Your task to perform on an android device: turn off translation in the chrome app Image 0: 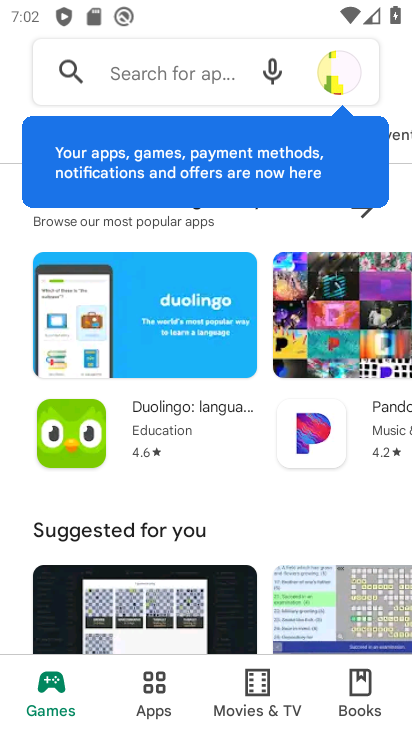
Step 0: press home button
Your task to perform on an android device: turn off translation in the chrome app Image 1: 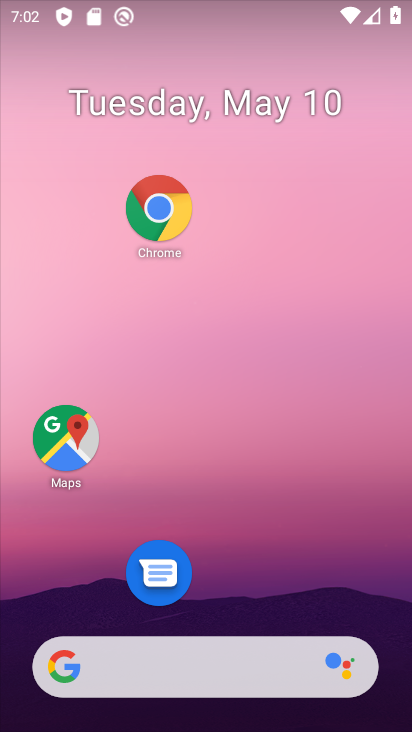
Step 1: click (158, 216)
Your task to perform on an android device: turn off translation in the chrome app Image 2: 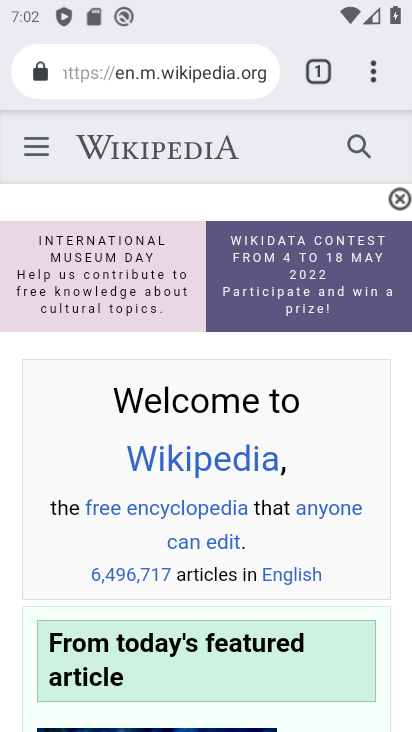
Step 2: click (366, 63)
Your task to perform on an android device: turn off translation in the chrome app Image 3: 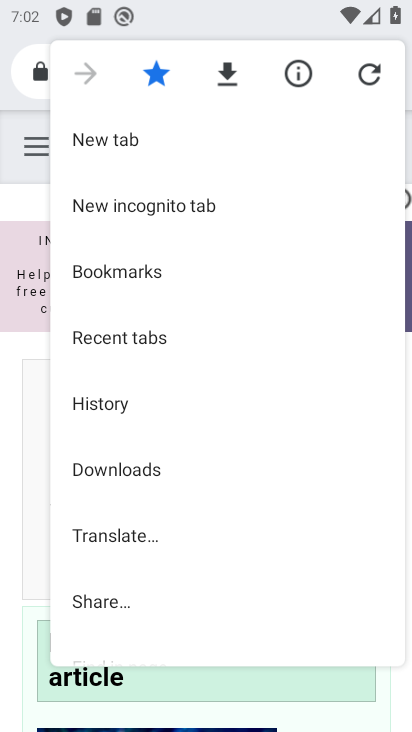
Step 3: drag from (153, 587) to (134, 167)
Your task to perform on an android device: turn off translation in the chrome app Image 4: 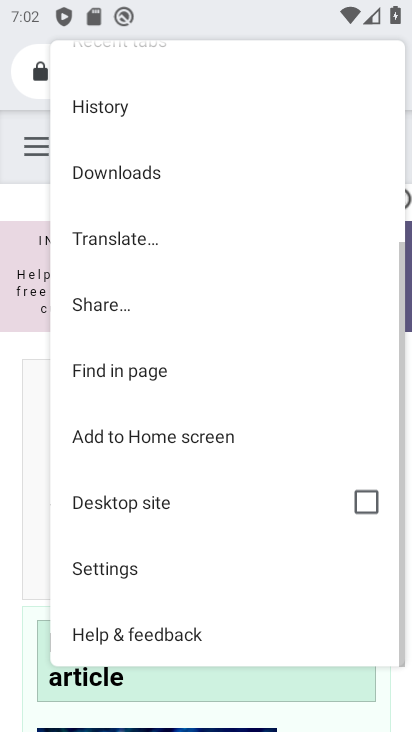
Step 4: click (140, 561)
Your task to perform on an android device: turn off translation in the chrome app Image 5: 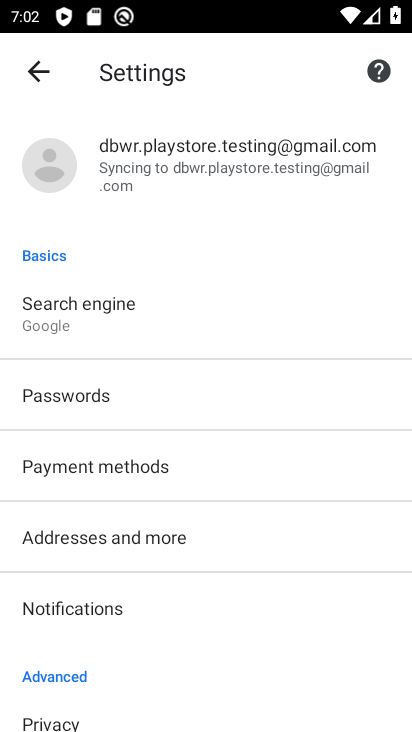
Step 5: drag from (111, 653) to (198, 240)
Your task to perform on an android device: turn off translation in the chrome app Image 6: 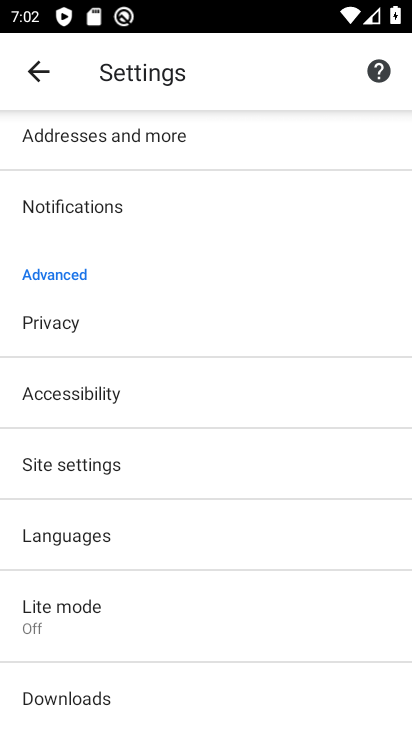
Step 6: click (93, 535)
Your task to perform on an android device: turn off translation in the chrome app Image 7: 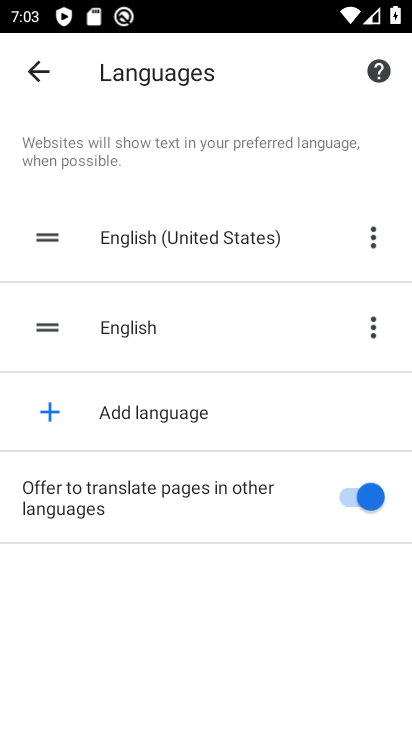
Step 7: click (157, 496)
Your task to perform on an android device: turn off translation in the chrome app Image 8: 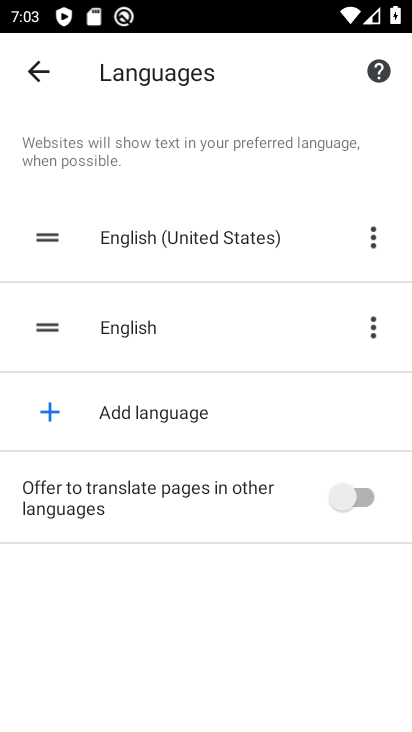
Step 8: task complete